Your task to perform on an android device: change the clock style Image 0: 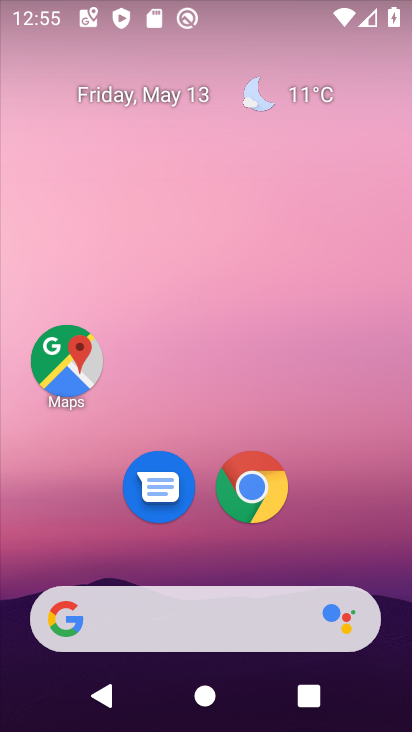
Step 0: drag from (329, 509) to (331, 77)
Your task to perform on an android device: change the clock style Image 1: 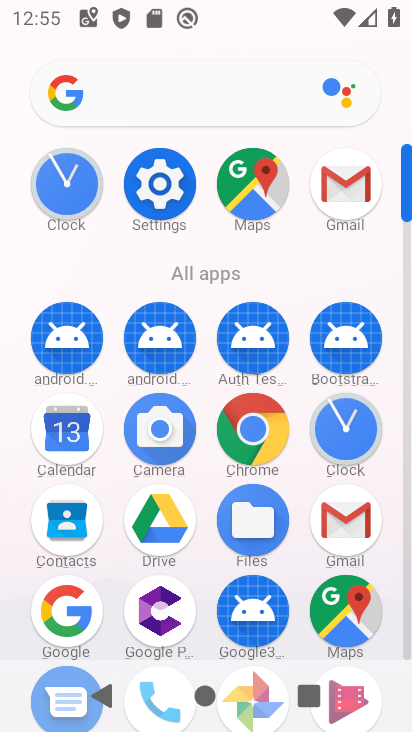
Step 1: click (342, 422)
Your task to perform on an android device: change the clock style Image 2: 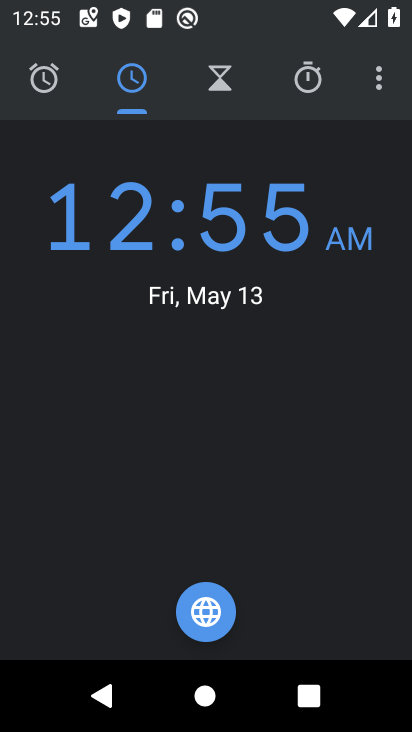
Step 2: click (376, 87)
Your task to perform on an android device: change the clock style Image 3: 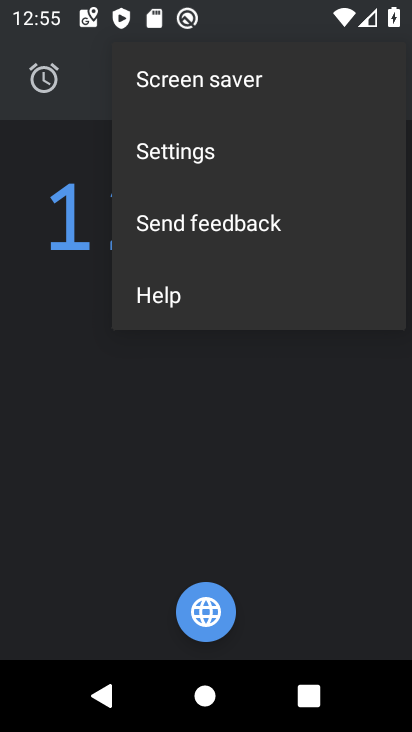
Step 3: click (315, 154)
Your task to perform on an android device: change the clock style Image 4: 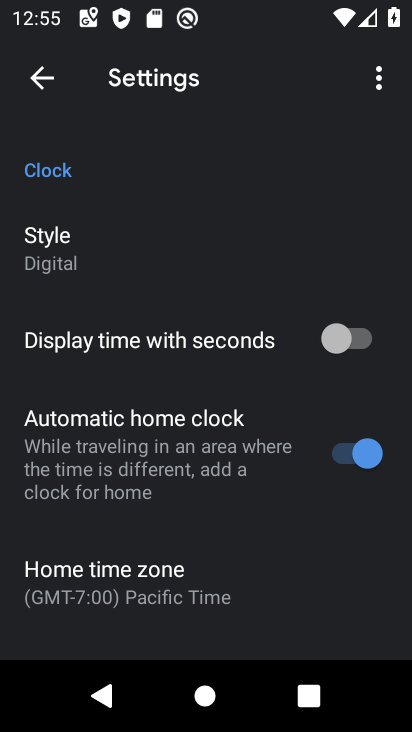
Step 4: click (188, 259)
Your task to perform on an android device: change the clock style Image 5: 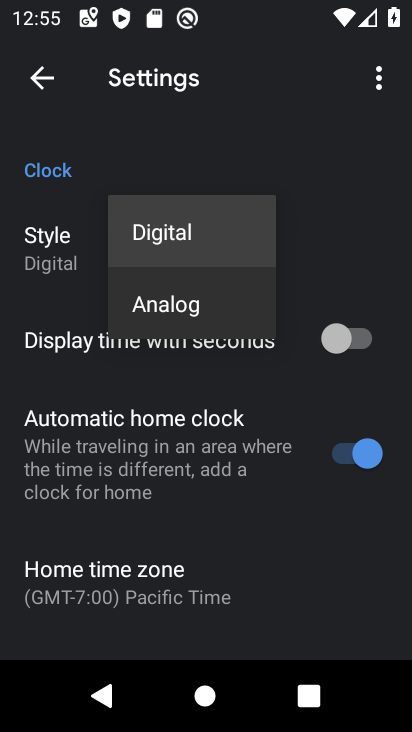
Step 5: click (218, 296)
Your task to perform on an android device: change the clock style Image 6: 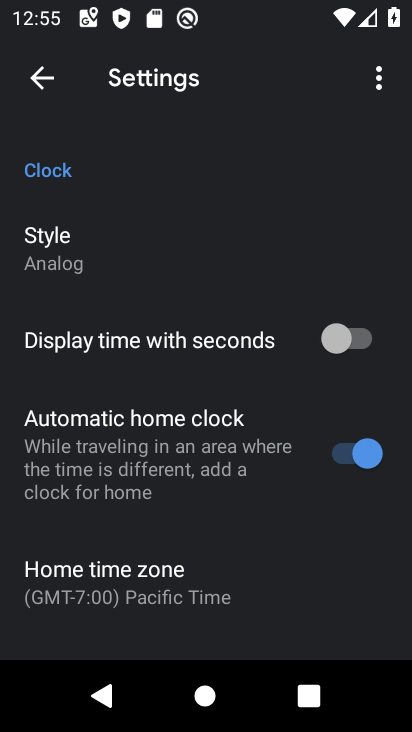
Step 6: task complete